Your task to perform on an android device: toggle data saver in the chrome app Image 0: 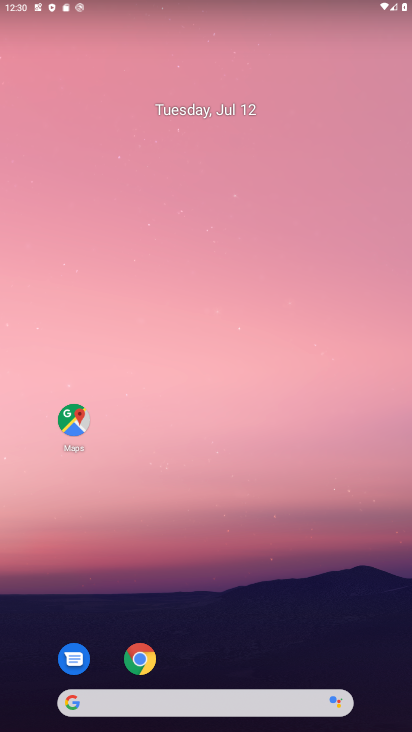
Step 0: click (142, 665)
Your task to perform on an android device: toggle data saver in the chrome app Image 1: 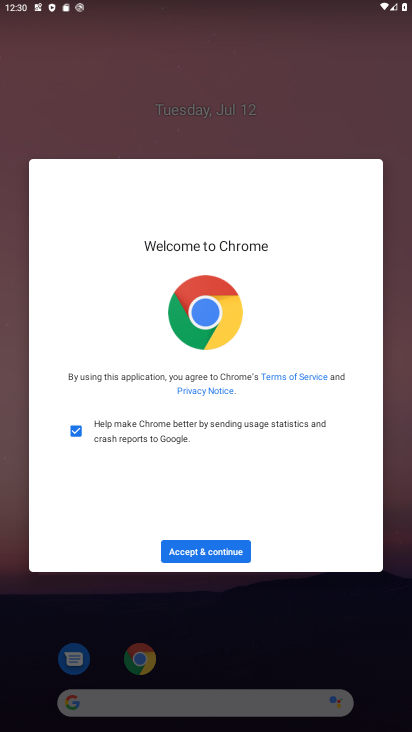
Step 1: click (205, 548)
Your task to perform on an android device: toggle data saver in the chrome app Image 2: 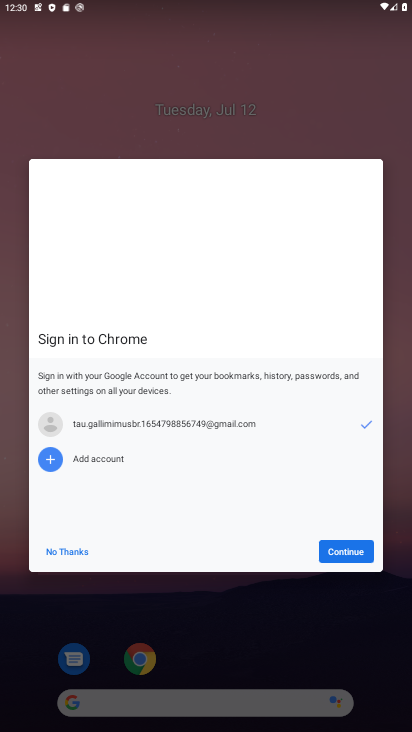
Step 2: click (332, 551)
Your task to perform on an android device: toggle data saver in the chrome app Image 3: 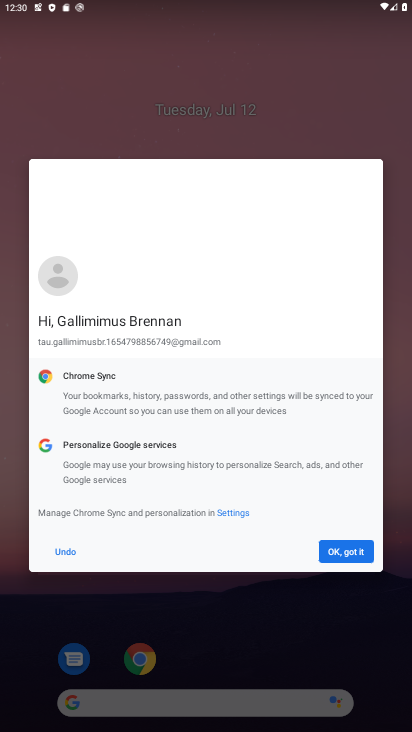
Step 3: click (354, 553)
Your task to perform on an android device: toggle data saver in the chrome app Image 4: 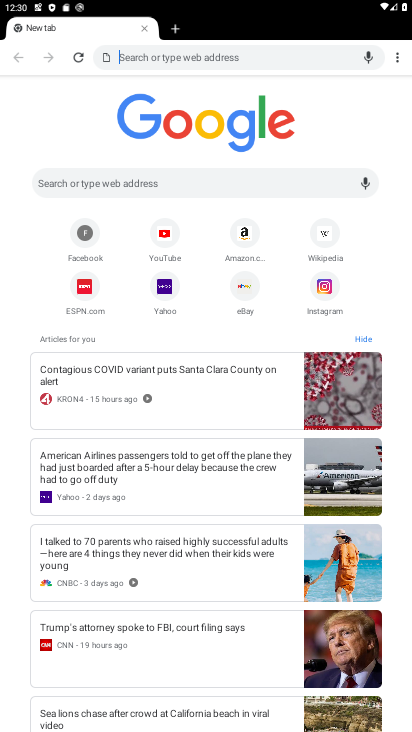
Step 4: click (396, 56)
Your task to perform on an android device: toggle data saver in the chrome app Image 5: 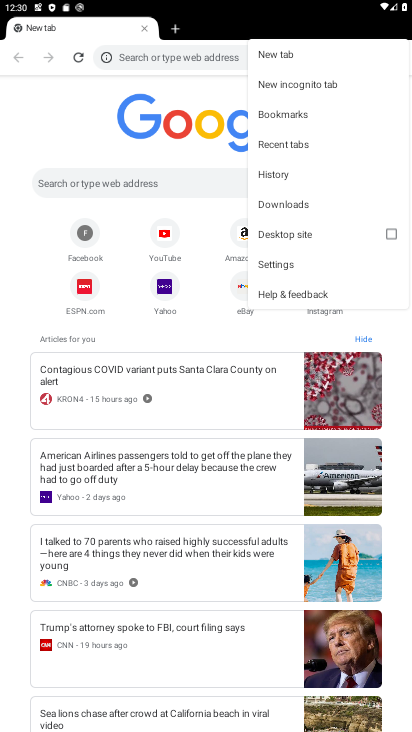
Step 5: click (279, 256)
Your task to perform on an android device: toggle data saver in the chrome app Image 6: 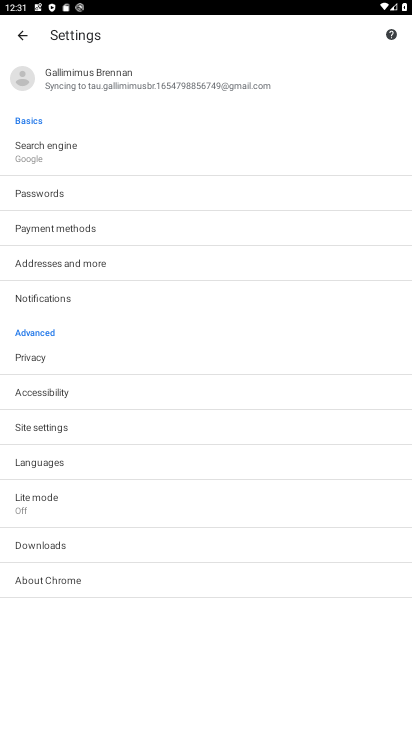
Step 6: click (36, 499)
Your task to perform on an android device: toggle data saver in the chrome app Image 7: 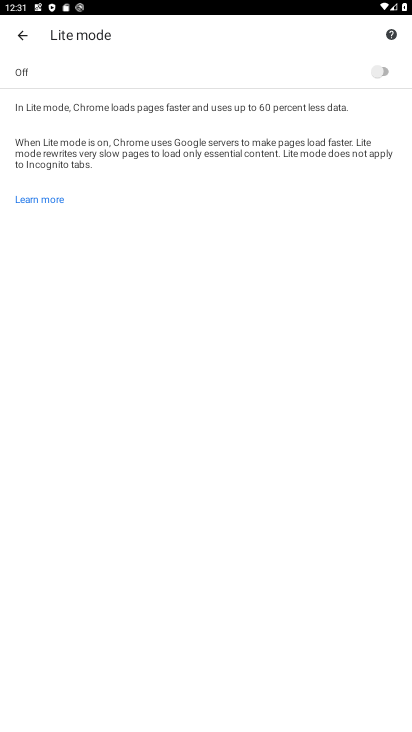
Step 7: click (387, 69)
Your task to perform on an android device: toggle data saver in the chrome app Image 8: 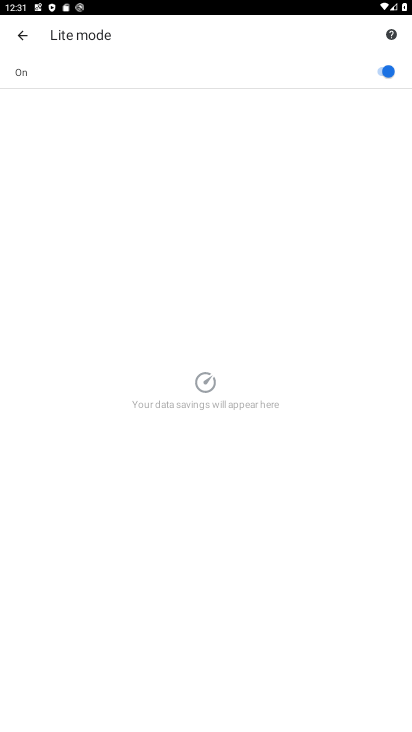
Step 8: task complete